Your task to perform on an android device: Go to sound settings Image 0: 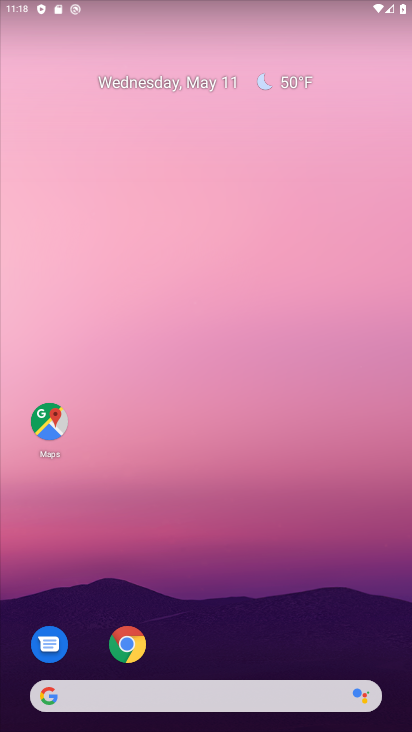
Step 0: drag from (246, 566) to (269, 25)
Your task to perform on an android device: Go to sound settings Image 1: 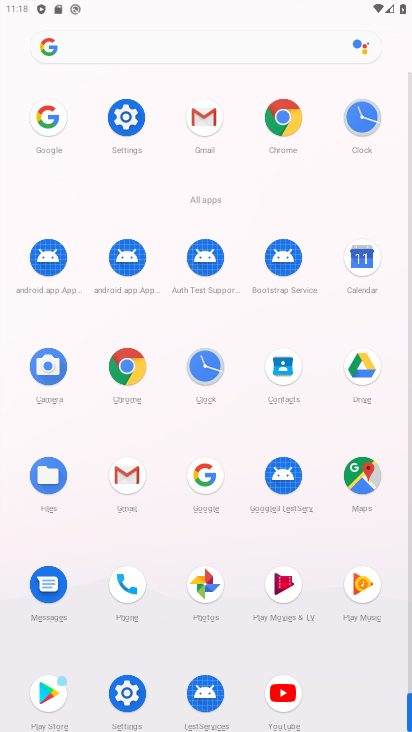
Step 1: click (119, 122)
Your task to perform on an android device: Go to sound settings Image 2: 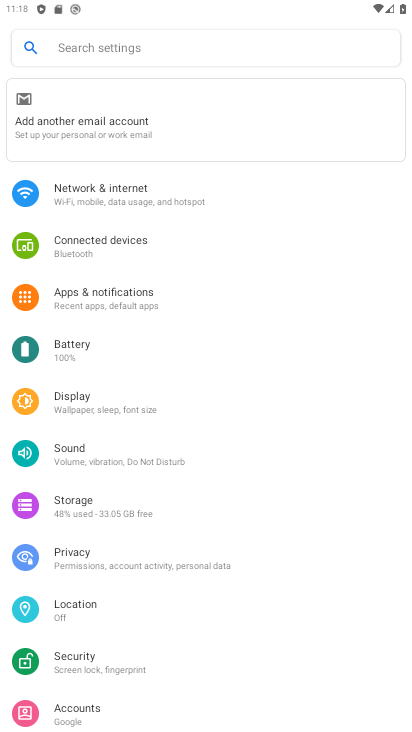
Step 2: click (73, 461)
Your task to perform on an android device: Go to sound settings Image 3: 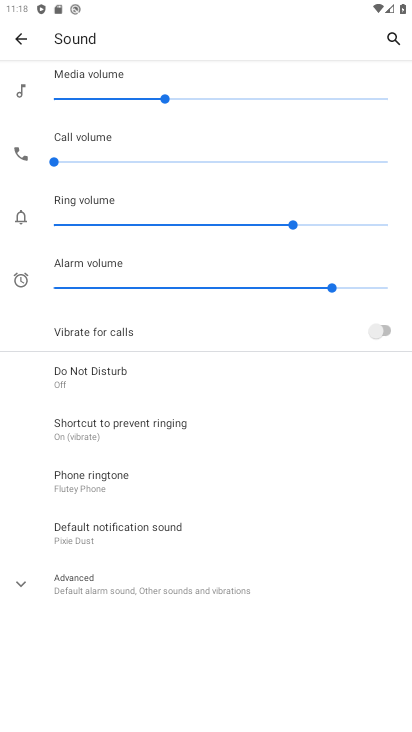
Step 3: task complete